Your task to perform on an android device: turn off wifi Image 0: 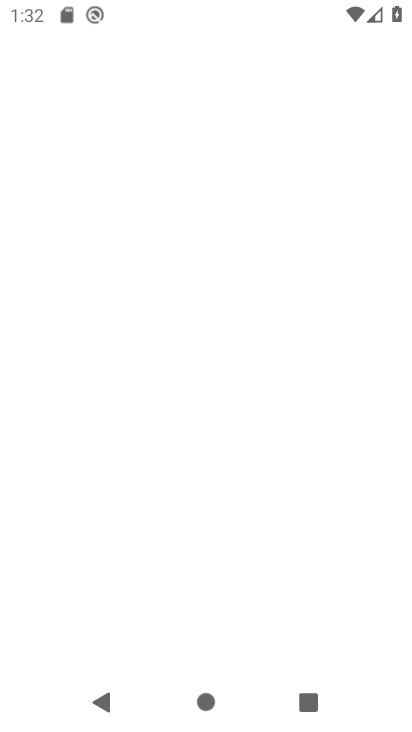
Step 0: press home button
Your task to perform on an android device: turn off wifi Image 1: 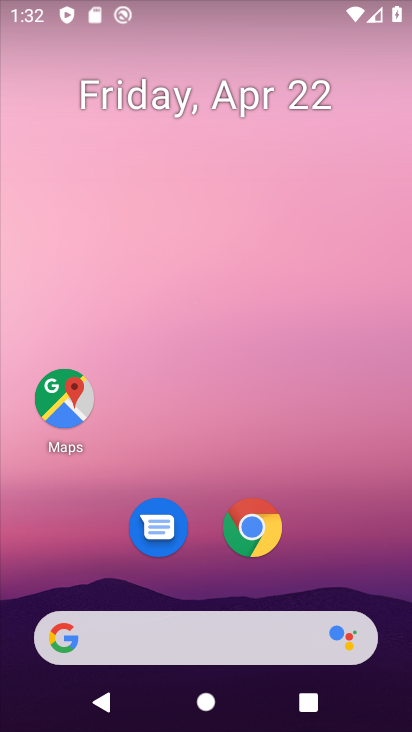
Step 1: drag from (301, 305) to (265, 88)
Your task to perform on an android device: turn off wifi Image 2: 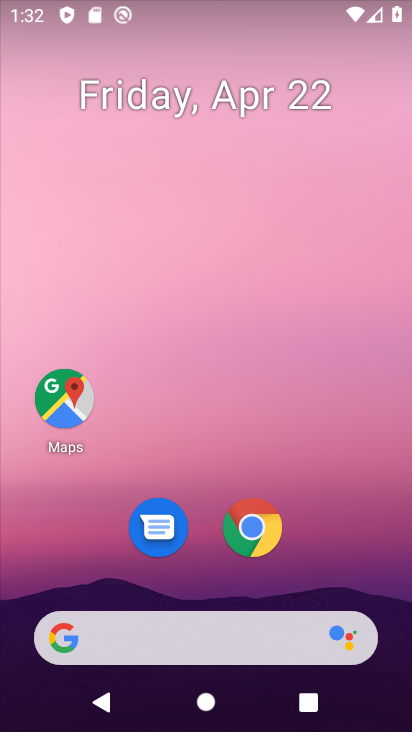
Step 2: drag from (315, 552) to (298, 91)
Your task to perform on an android device: turn off wifi Image 3: 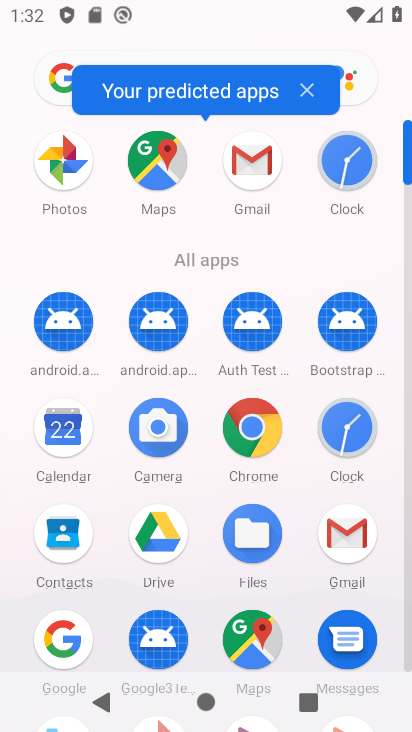
Step 3: drag from (214, 512) to (207, 147)
Your task to perform on an android device: turn off wifi Image 4: 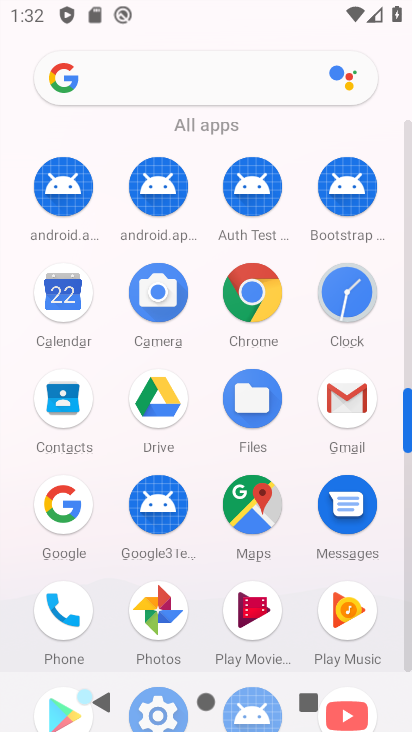
Step 4: drag from (207, 586) to (211, 379)
Your task to perform on an android device: turn off wifi Image 5: 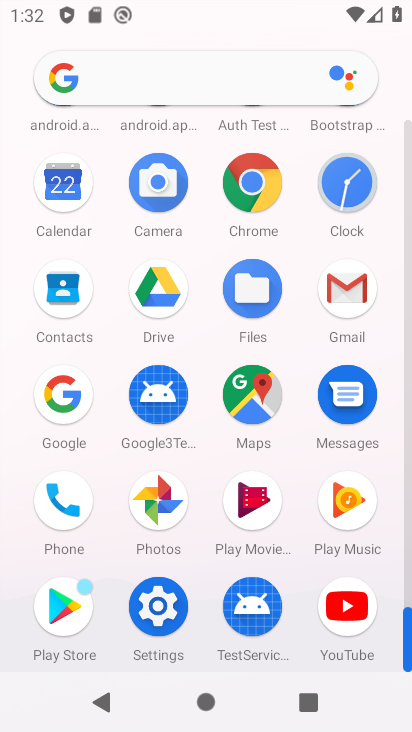
Step 5: click (172, 610)
Your task to perform on an android device: turn off wifi Image 6: 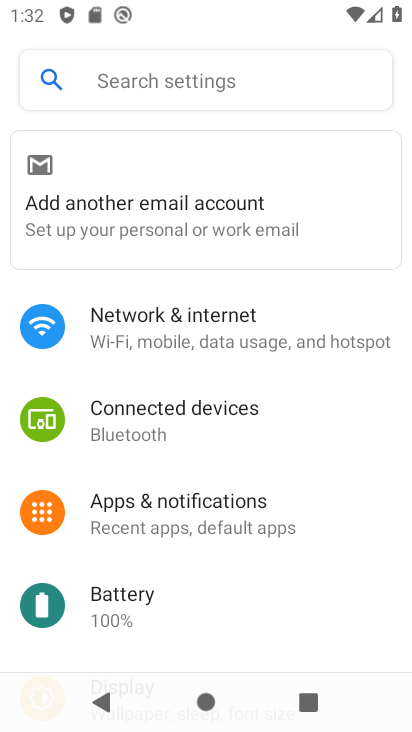
Step 6: click (128, 327)
Your task to perform on an android device: turn off wifi Image 7: 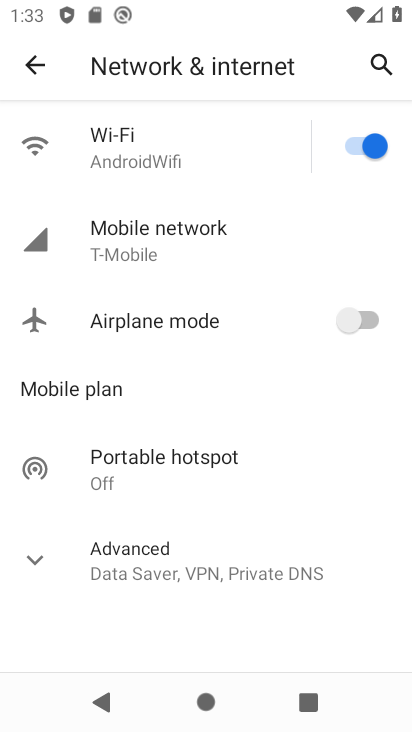
Step 7: click (370, 147)
Your task to perform on an android device: turn off wifi Image 8: 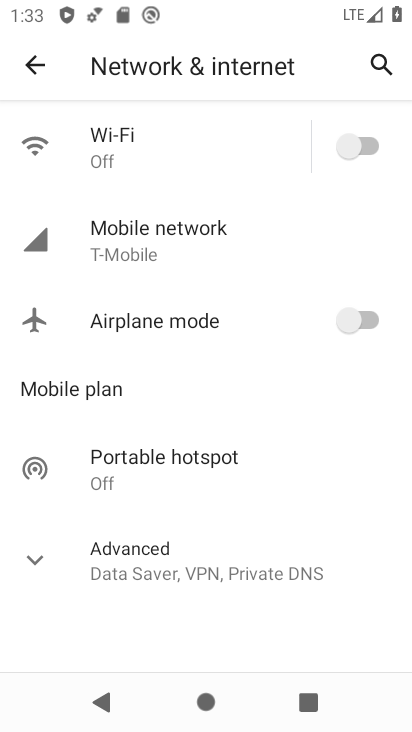
Step 8: task complete